Your task to perform on an android device: Open Youtube and go to "Your channel" Image 0: 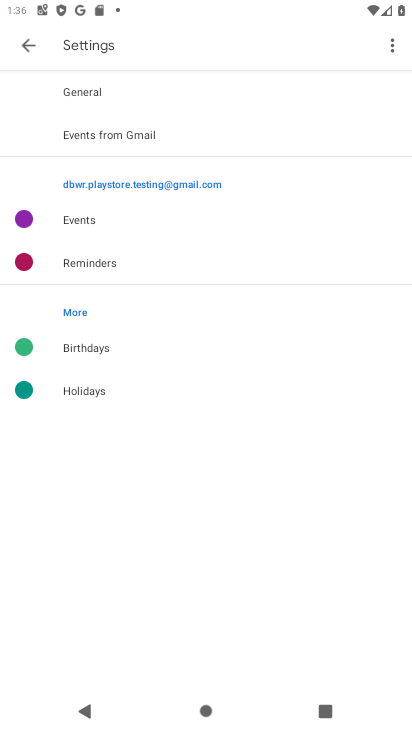
Step 0: press home button
Your task to perform on an android device: Open Youtube and go to "Your channel" Image 1: 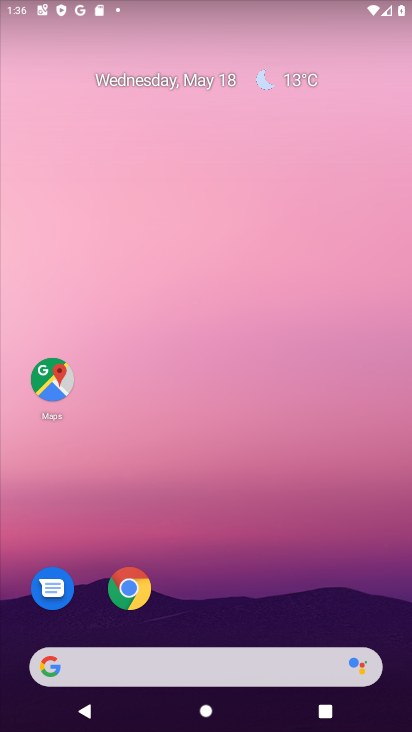
Step 1: drag from (198, 605) to (243, 167)
Your task to perform on an android device: Open Youtube and go to "Your channel" Image 2: 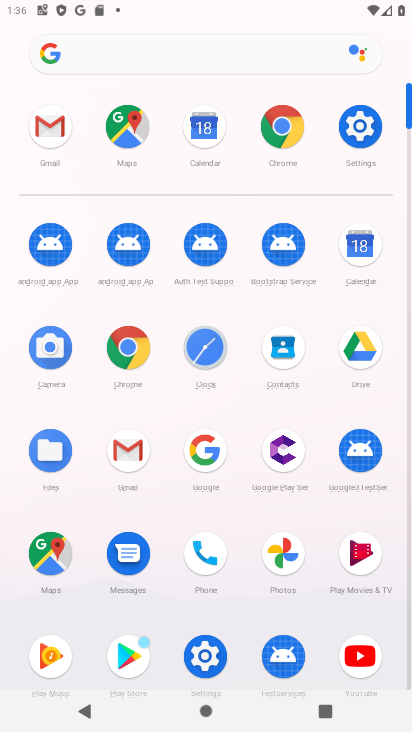
Step 2: click (367, 649)
Your task to perform on an android device: Open Youtube and go to "Your channel" Image 3: 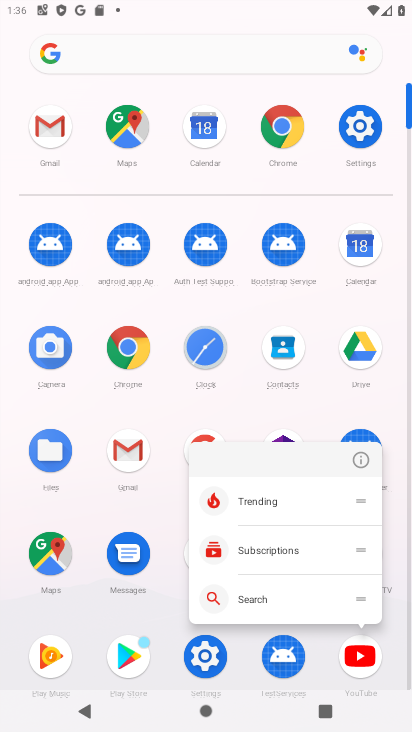
Step 3: click (359, 458)
Your task to perform on an android device: Open Youtube and go to "Your channel" Image 4: 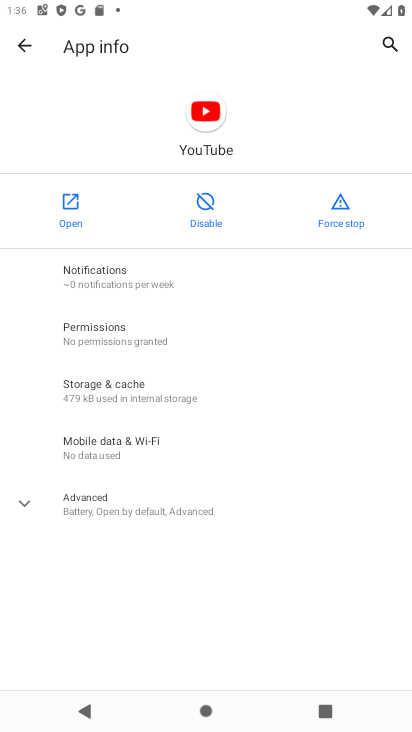
Step 4: click (65, 205)
Your task to perform on an android device: Open Youtube and go to "Your channel" Image 5: 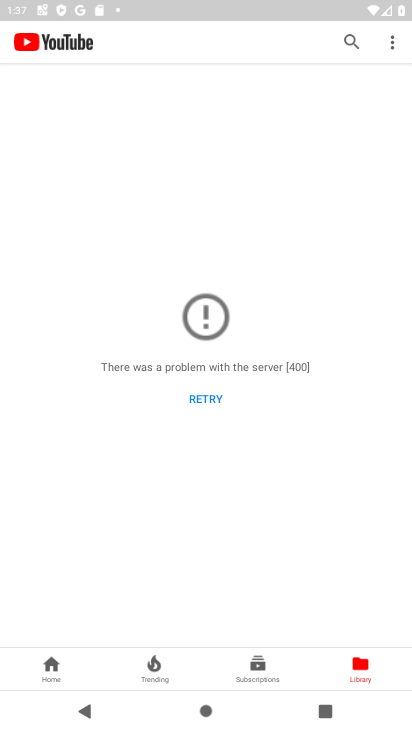
Step 5: drag from (254, 563) to (225, 313)
Your task to perform on an android device: Open Youtube and go to "Your channel" Image 6: 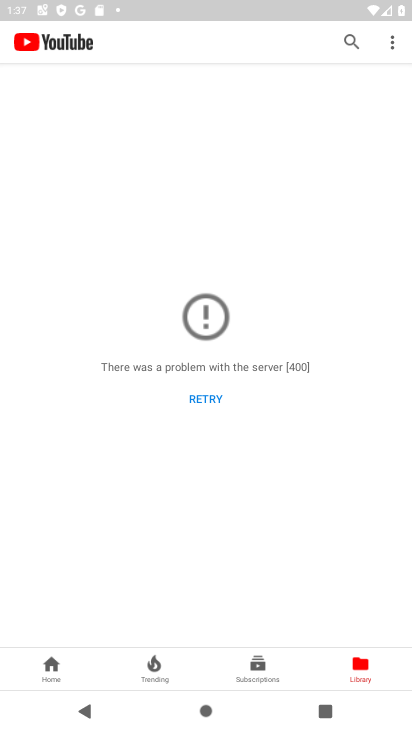
Step 6: click (398, 47)
Your task to perform on an android device: Open Youtube and go to "Your channel" Image 7: 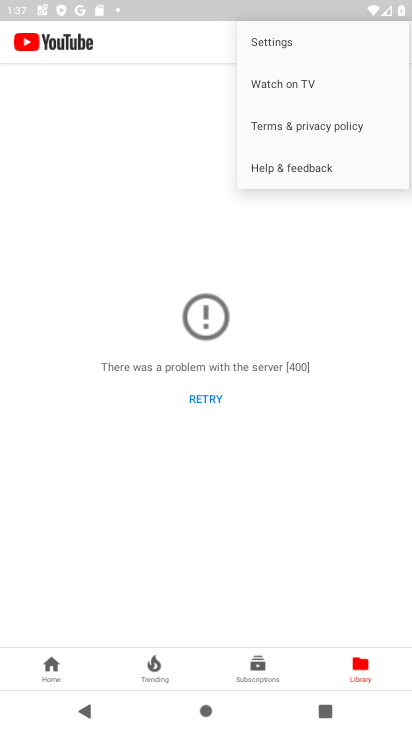
Step 7: task complete